Your task to perform on an android device: Open the phone app and click the voicemail tab. Image 0: 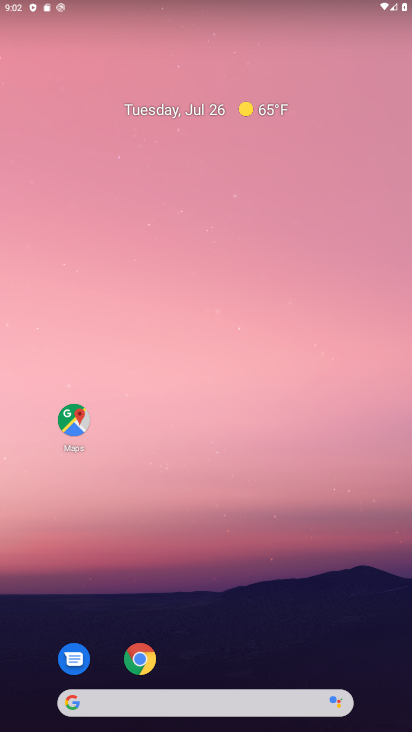
Step 0: drag from (197, 173) to (198, 136)
Your task to perform on an android device: Open the phone app and click the voicemail tab. Image 1: 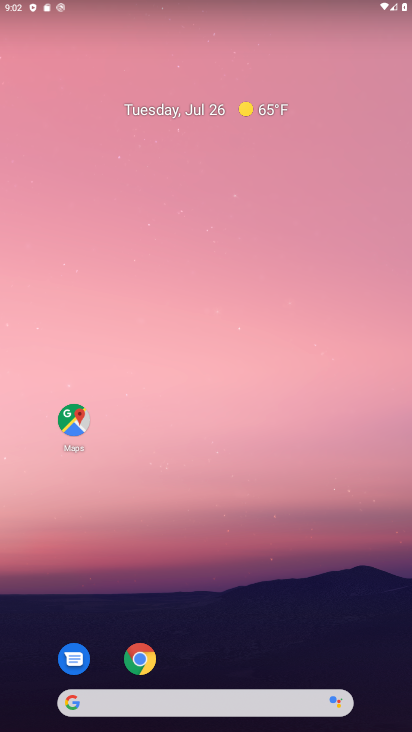
Step 1: drag from (203, 545) to (197, 207)
Your task to perform on an android device: Open the phone app and click the voicemail tab. Image 2: 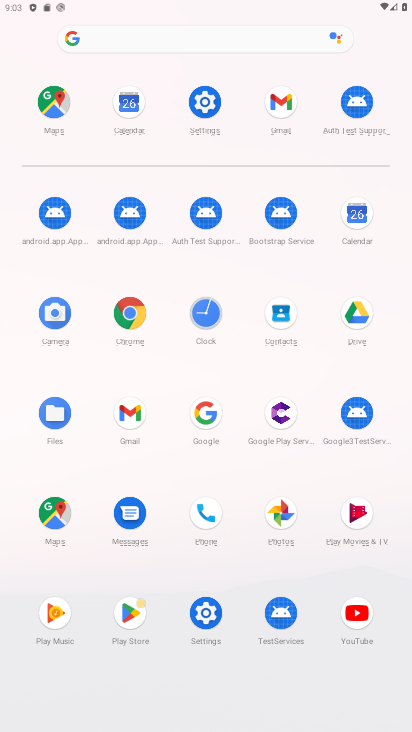
Step 2: click (207, 531)
Your task to perform on an android device: Open the phone app and click the voicemail tab. Image 3: 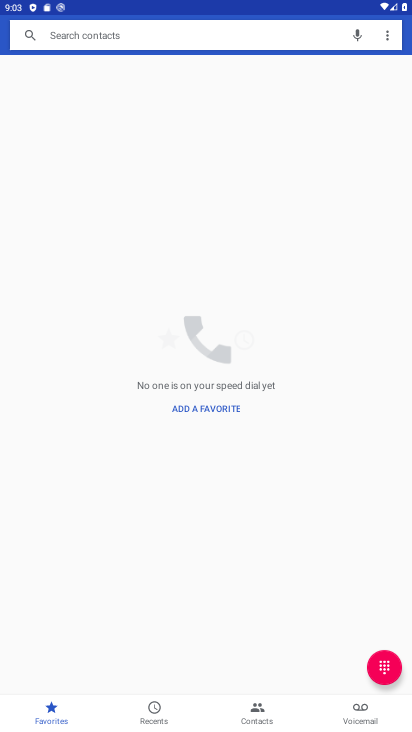
Step 3: click (362, 707)
Your task to perform on an android device: Open the phone app and click the voicemail tab. Image 4: 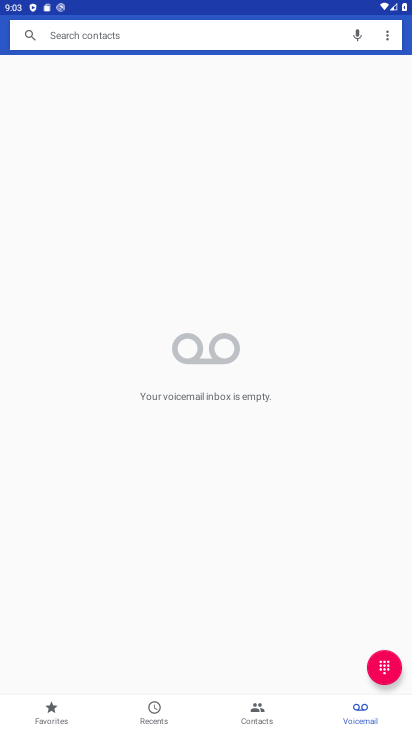
Step 4: task complete